Your task to perform on an android device: When is my next appointment? Image 0: 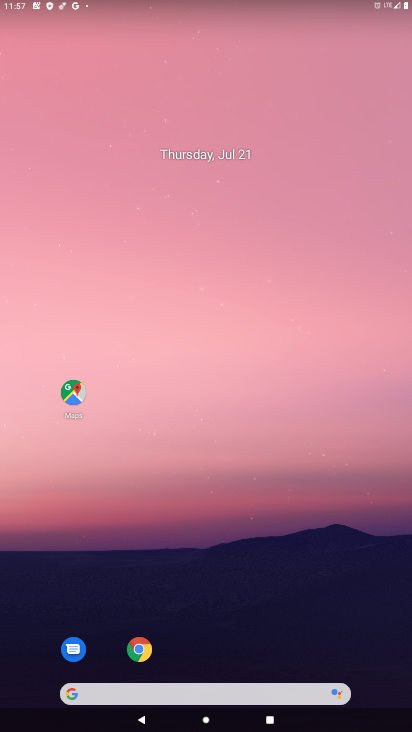
Step 0: drag from (302, 639) to (272, 143)
Your task to perform on an android device: When is my next appointment? Image 1: 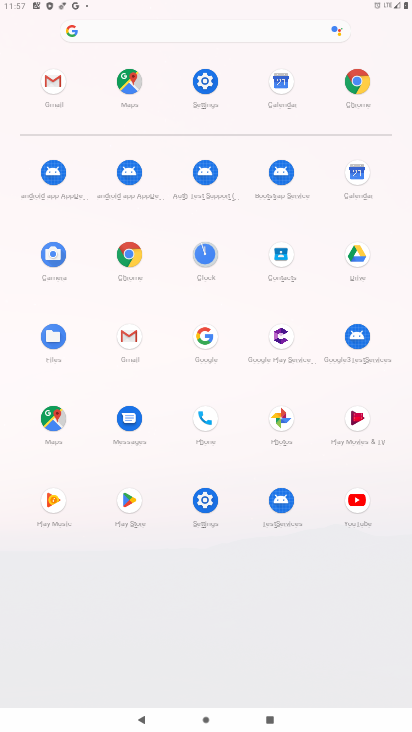
Step 1: click (359, 171)
Your task to perform on an android device: When is my next appointment? Image 2: 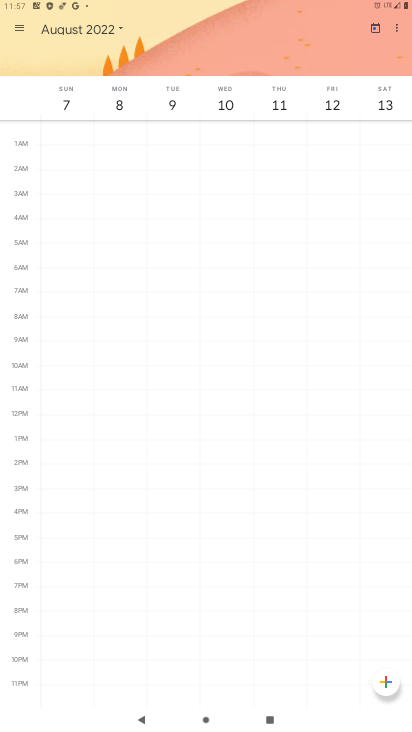
Step 2: click (73, 31)
Your task to perform on an android device: When is my next appointment? Image 3: 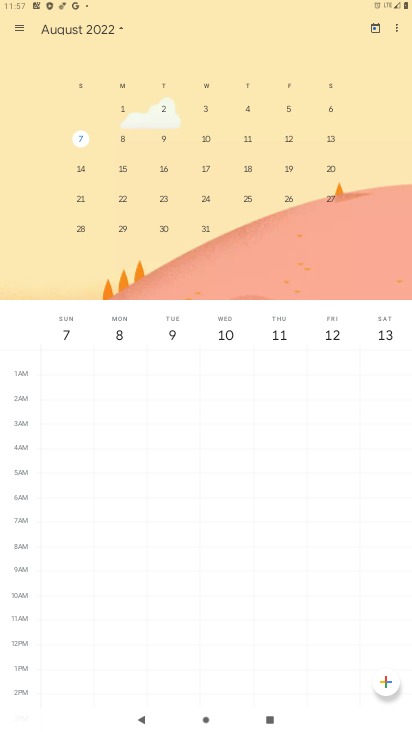
Step 3: drag from (99, 181) to (368, 147)
Your task to perform on an android device: When is my next appointment? Image 4: 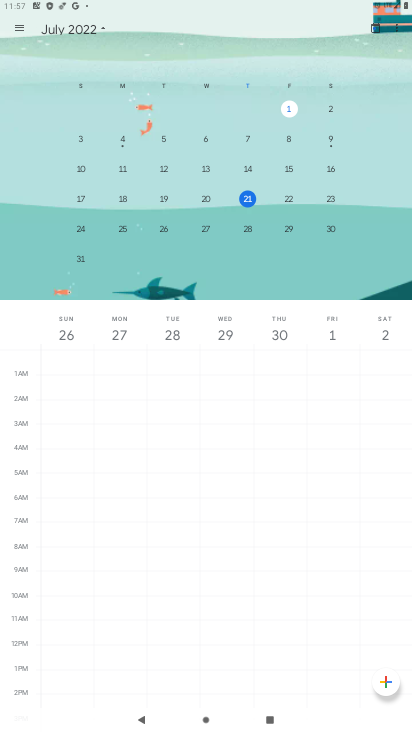
Step 4: click (256, 197)
Your task to perform on an android device: When is my next appointment? Image 5: 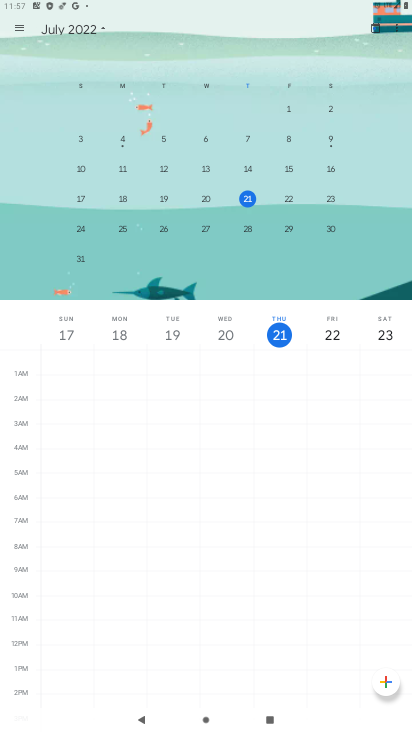
Step 5: task complete